Your task to perform on an android device: Open Chrome and go to settings Image 0: 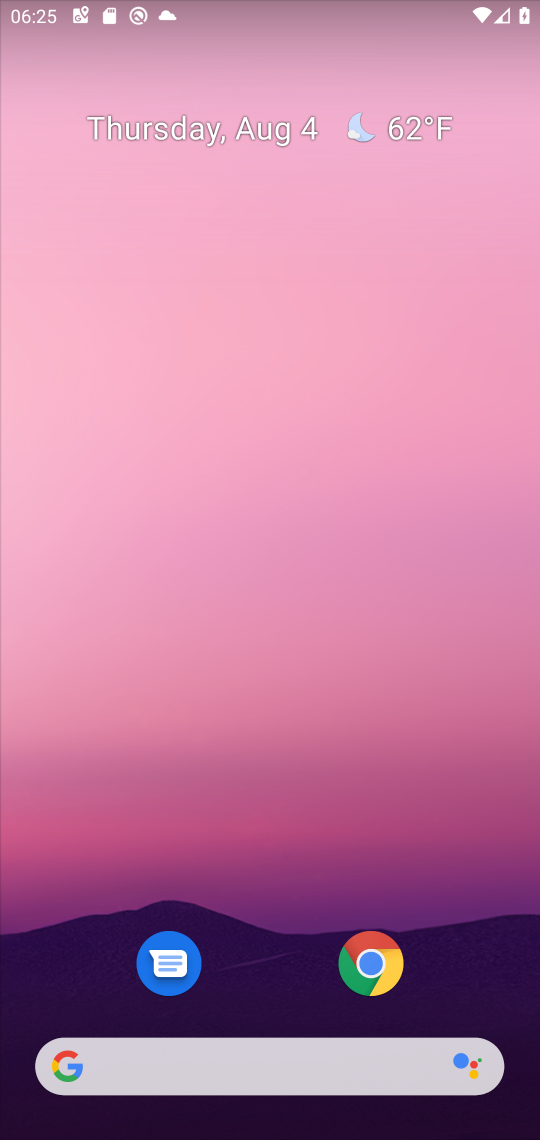
Step 0: click (375, 961)
Your task to perform on an android device: Open Chrome and go to settings Image 1: 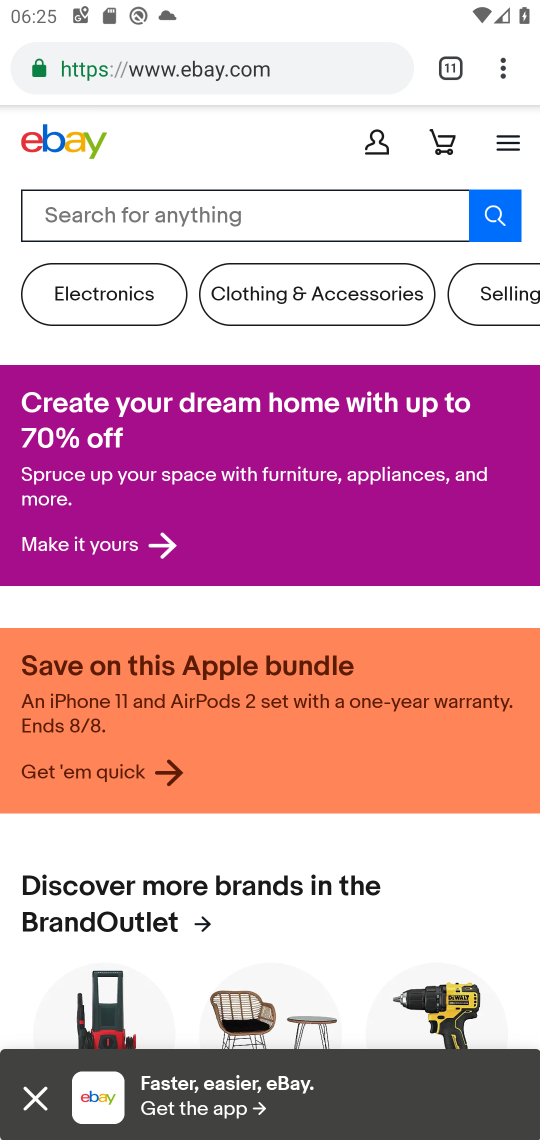
Step 1: click (508, 65)
Your task to perform on an android device: Open Chrome and go to settings Image 2: 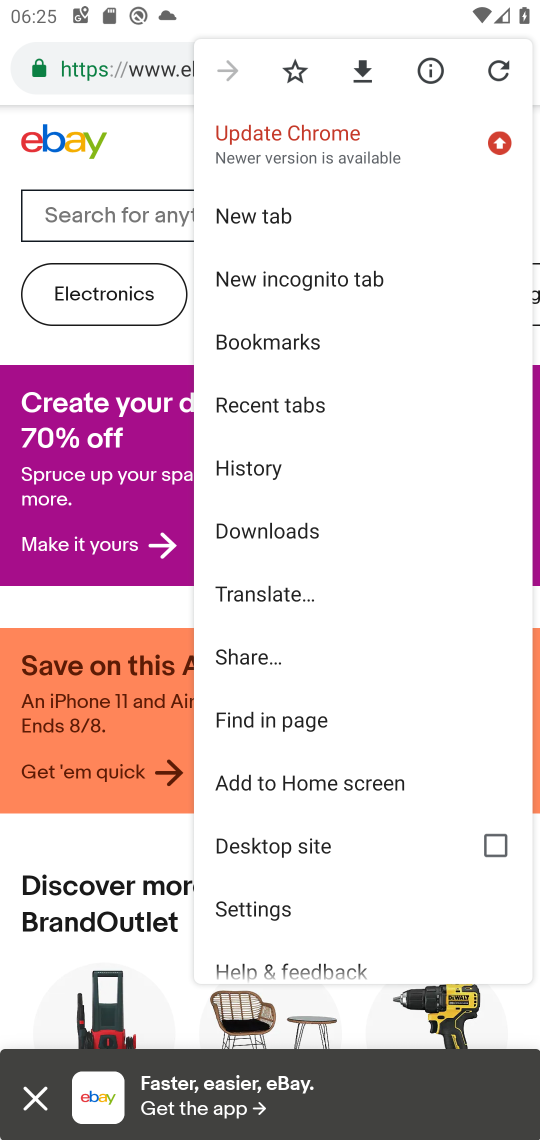
Step 2: click (237, 907)
Your task to perform on an android device: Open Chrome and go to settings Image 3: 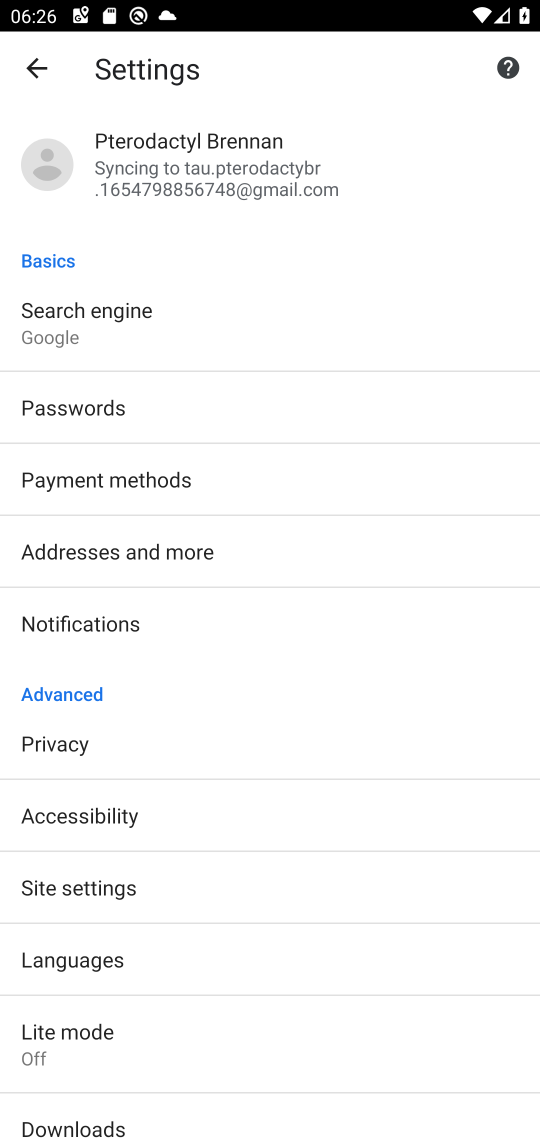
Step 3: task complete